Your task to perform on an android device: delete a single message in the gmail app Image 0: 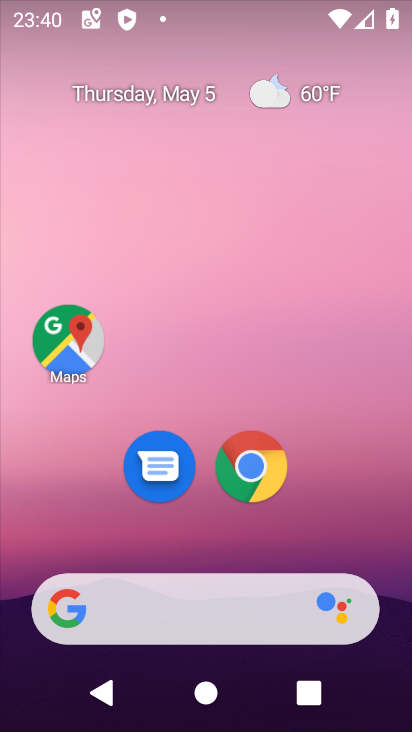
Step 0: drag from (215, 458) to (225, 158)
Your task to perform on an android device: delete a single message in the gmail app Image 1: 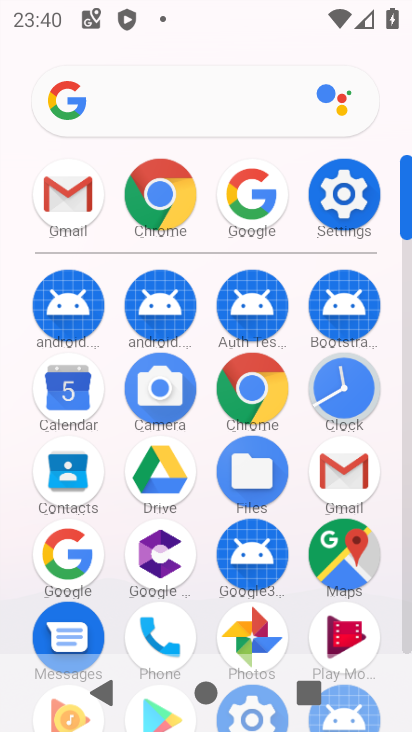
Step 1: click (354, 486)
Your task to perform on an android device: delete a single message in the gmail app Image 2: 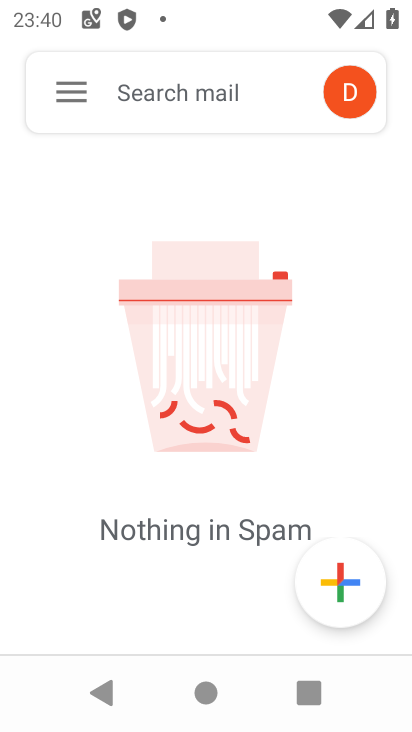
Step 2: click (68, 92)
Your task to perform on an android device: delete a single message in the gmail app Image 3: 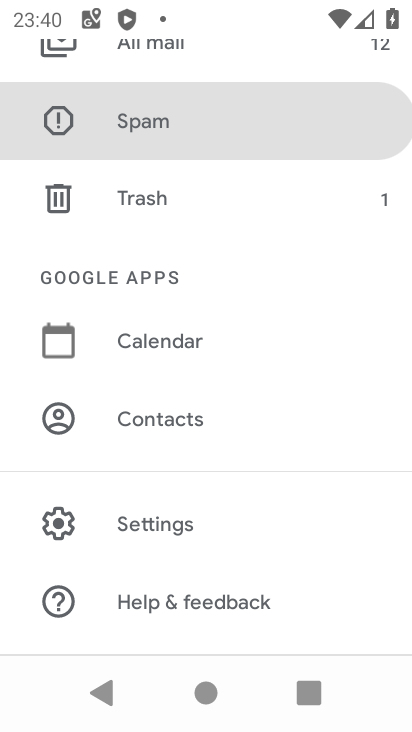
Step 3: drag from (132, 142) to (194, 526)
Your task to perform on an android device: delete a single message in the gmail app Image 4: 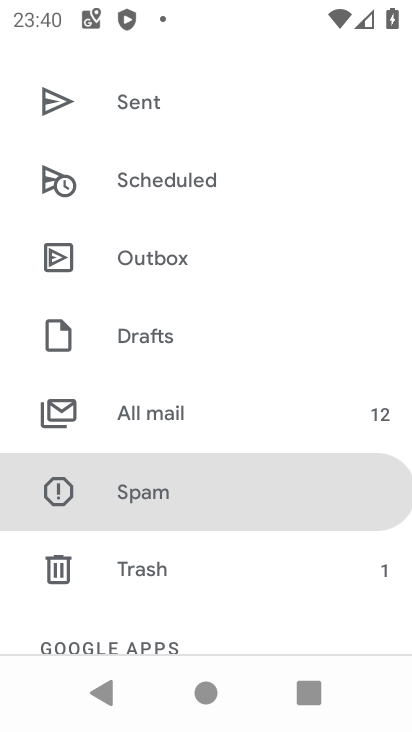
Step 4: click (166, 420)
Your task to perform on an android device: delete a single message in the gmail app Image 5: 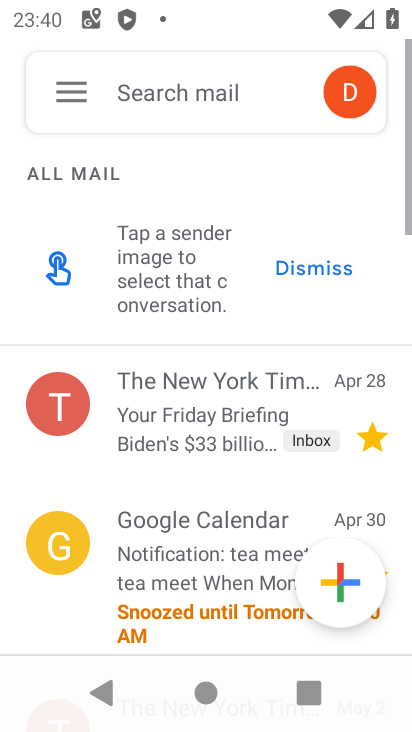
Step 5: click (177, 409)
Your task to perform on an android device: delete a single message in the gmail app Image 6: 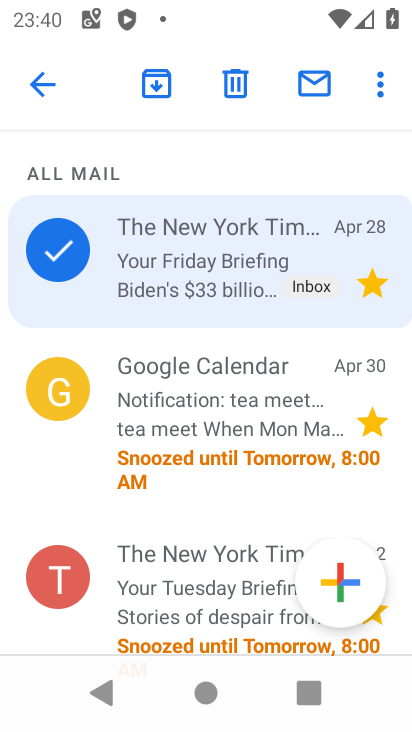
Step 6: click (245, 79)
Your task to perform on an android device: delete a single message in the gmail app Image 7: 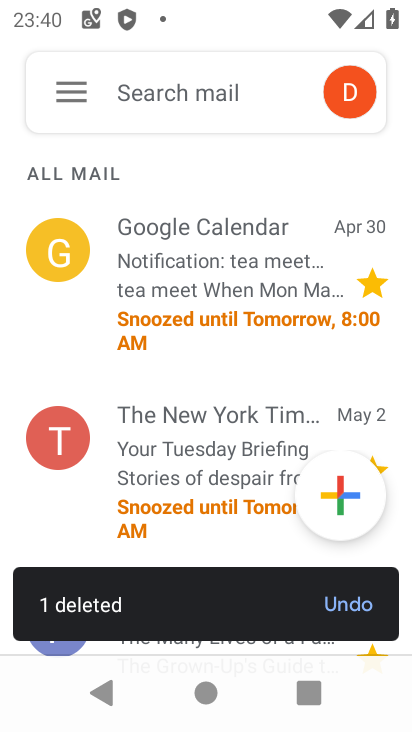
Step 7: task complete